Your task to perform on an android device: Go to wifi settings Image 0: 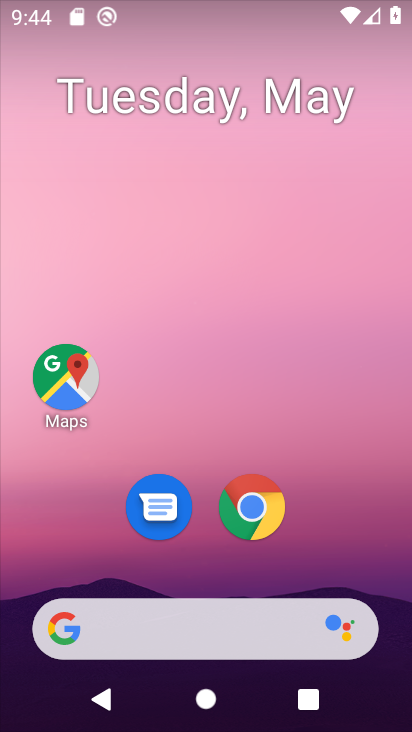
Step 0: drag from (301, 566) to (261, 22)
Your task to perform on an android device: Go to wifi settings Image 1: 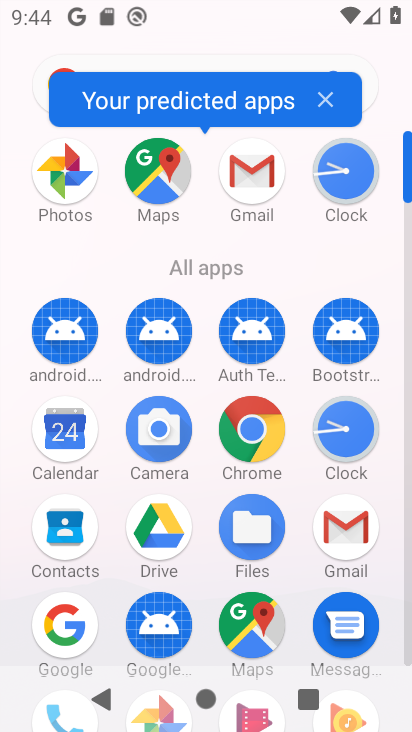
Step 1: drag from (205, 580) to (233, 189)
Your task to perform on an android device: Go to wifi settings Image 2: 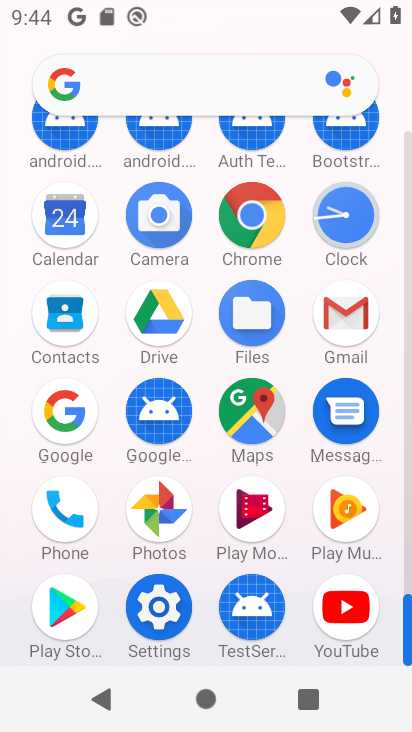
Step 2: click (159, 611)
Your task to perform on an android device: Go to wifi settings Image 3: 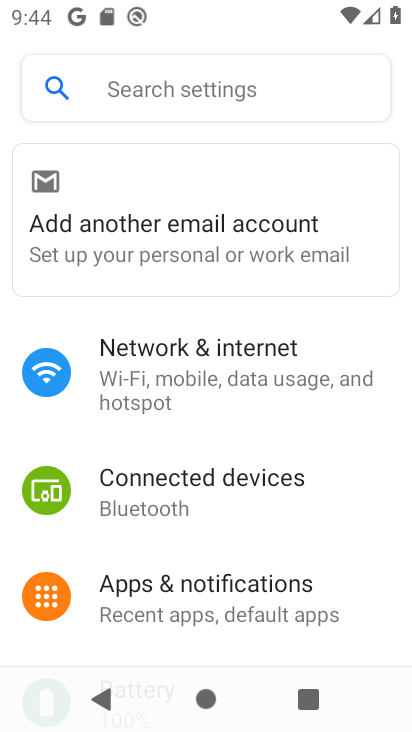
Step 3: click (202, 384)
Your task to perform on an android device: Go to wifi settings Image 4: 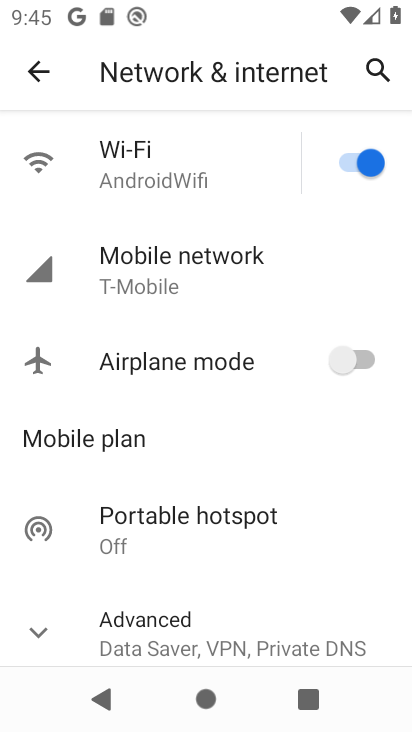
Step 4: click (158, 170)
Your task to perform on an android device: Go to wifi settings Image 5: 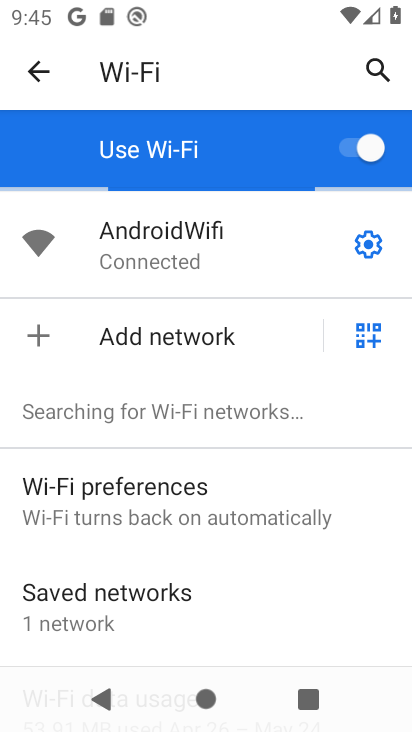
Step 5: task complete